Your task to perform on an android device: Open Maps and search for coffee Image 0: 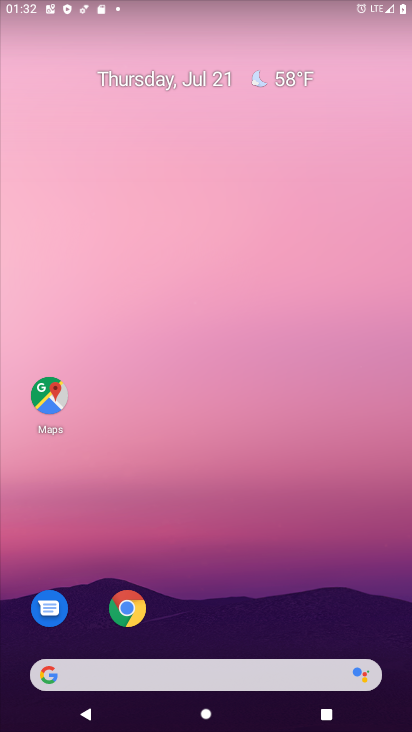
Step 0: press home button
Your task to perform on an android device: Open Maps and search for coffee Image 1: 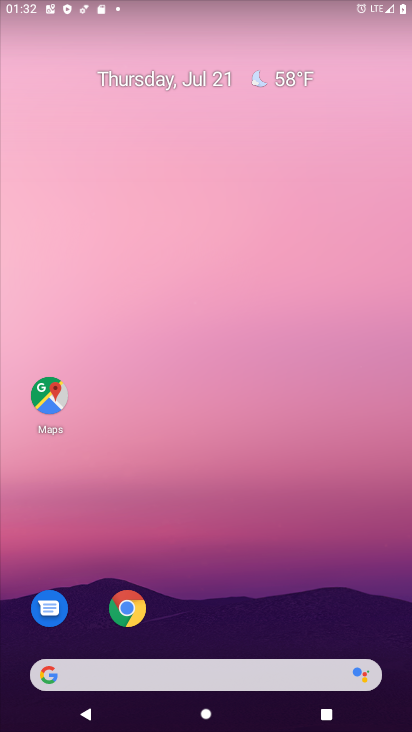
Step 1: click (45, 389)
Your task to perform on an android device: Open Maps and search for coffee Image 2: 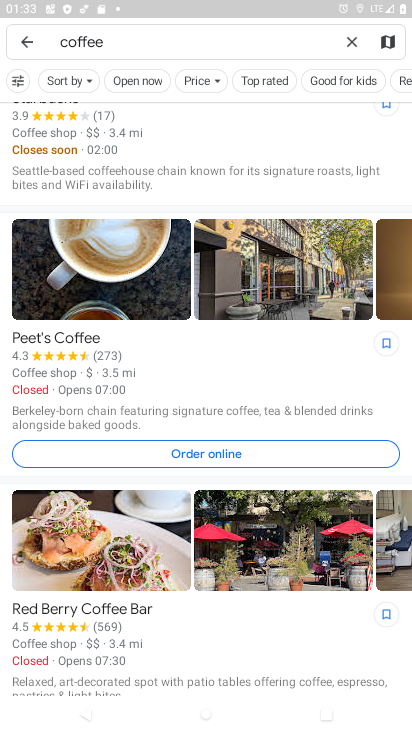
Step 2: task complete